Your task to perform on an android device: change the clock display to show seconds Image 0: 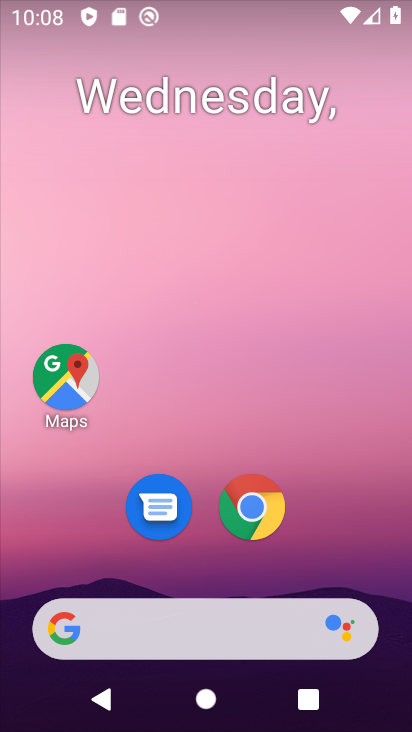
Step 0: drag from (297, 601) to (349, 144)
Your task to perform on an android device: change the clock display to show seconds Image 1: 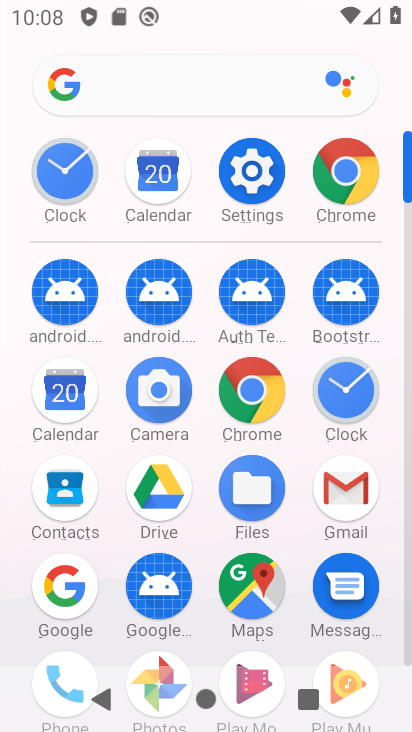
Step 1: click (257, 190)
Your task to perform on an android device: change the clock display to show seconds Image 2: 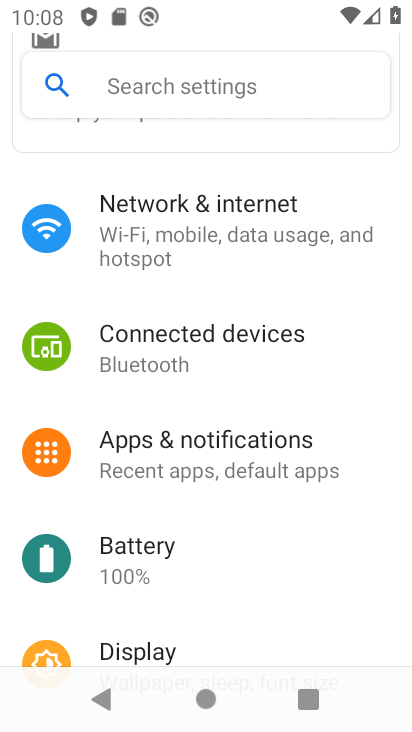
Step 2: click (144, 645)
Your task to perform on an android device: change the clock display to show seconds Image 3: 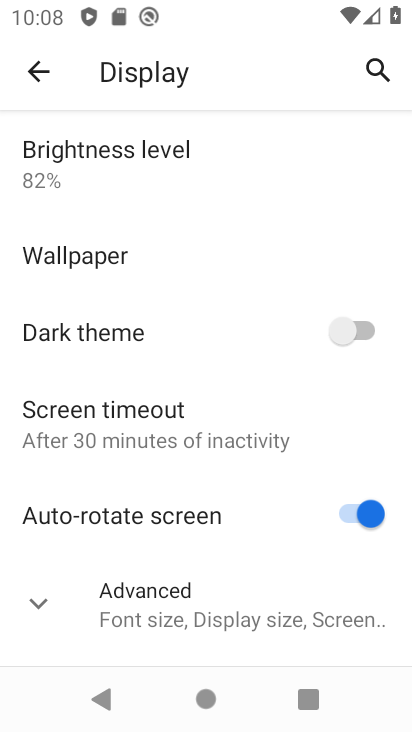
Step 3: click (135, 623)
Your task to perform on an android device: change the clock display to show seconds Image 4: 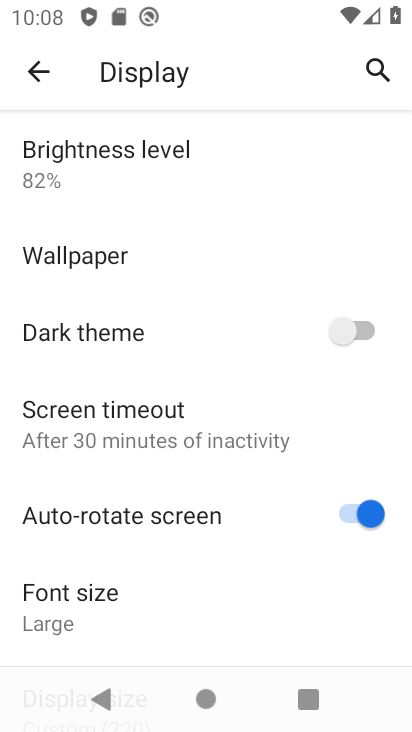
Step 4: press home button
Your task to perform on an android device: change the clock display to show seconds Image 5: 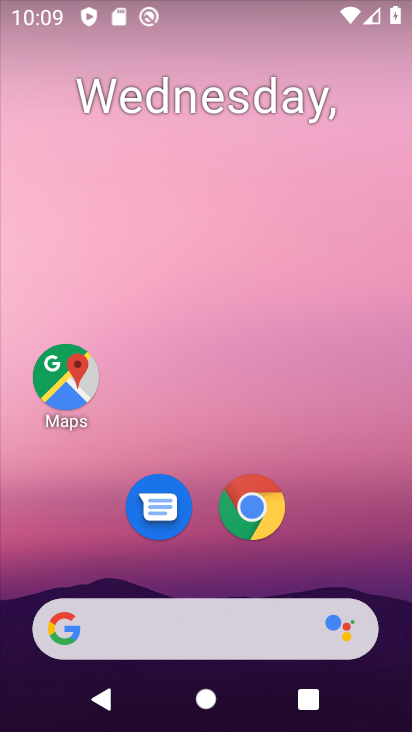
Step 5: drag from (250, 658) to (332, 116)
Your task to perform on an android device: change the clock display to show seconds Image 6: 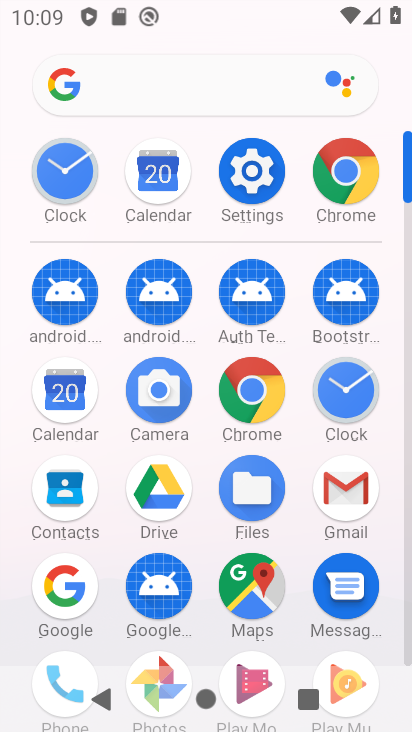
Step 6: click (328, 395)
Your task to perform on an android device: change the clock display to show seconds Image 7: 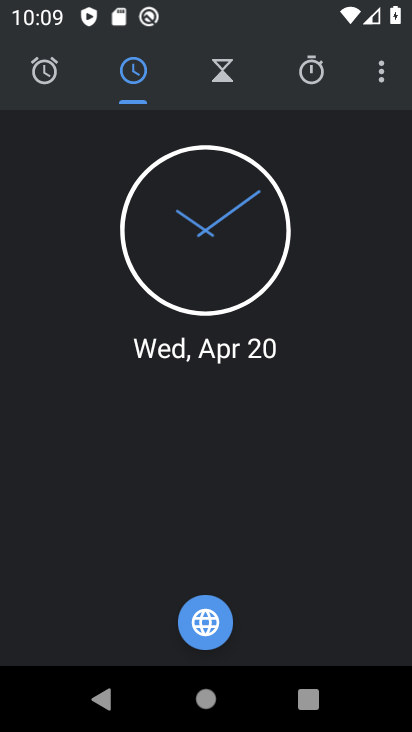
Step 7: click (374, 81)
Your task to perform on an android device: change the clock display to show seconds Image 8: 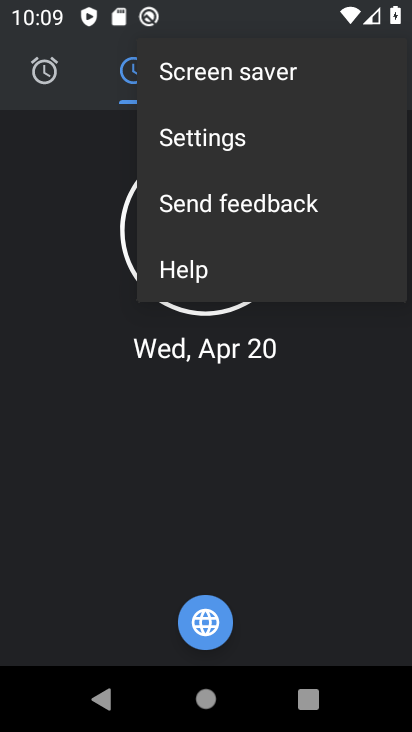
Step 8: click (234, 148)
Your task to perform on an android device: change the clock display to show seconds Image 9: 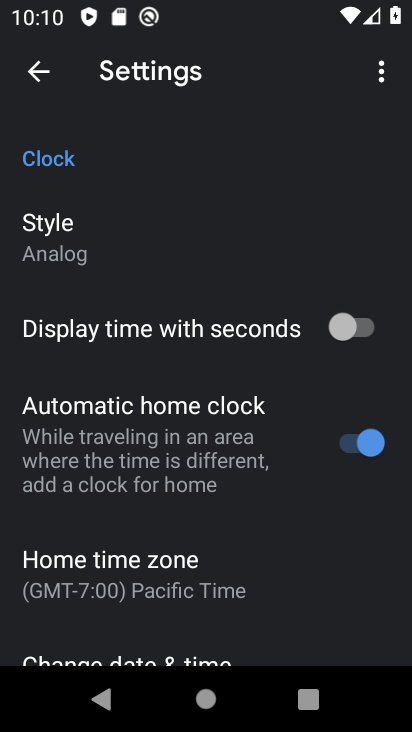
Step 9: drag from (163, 391) to (209, 249)
Your task to perform on an android device: change the clock display to show seconds Image 10: 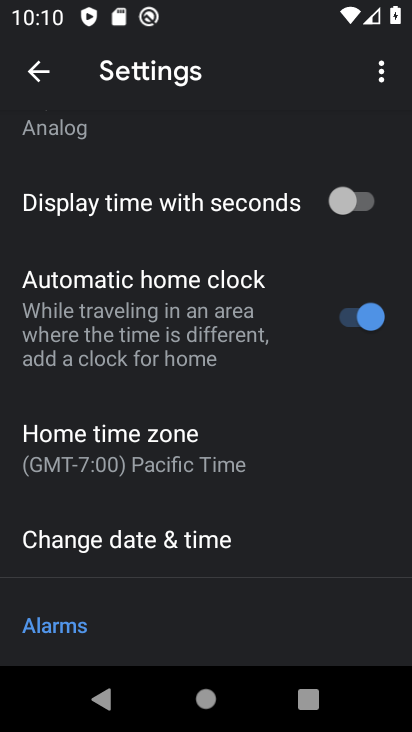
Step 10: click (250, 212)
Your task to perform on an android device: change the clock display to show seconds Image 11: 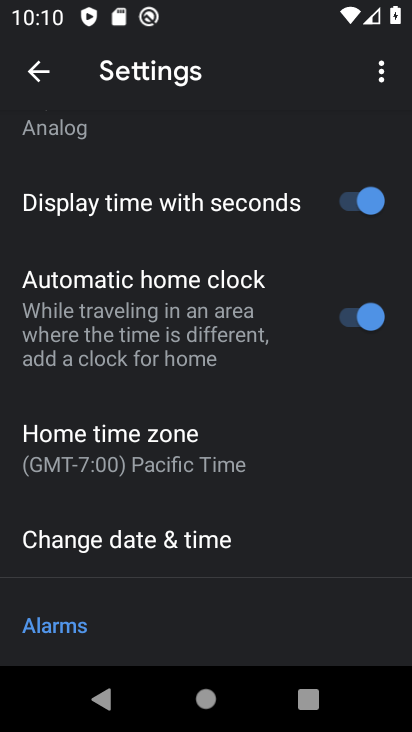
Step 11: task complete